Your task to perform on an android device: What's the weather? Image 0: 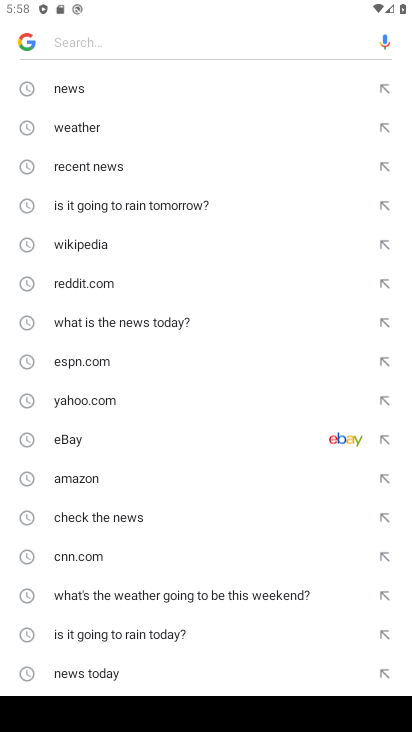
Step 0: press home button
Your task to perform on an android device: What's the weather? Image 1: 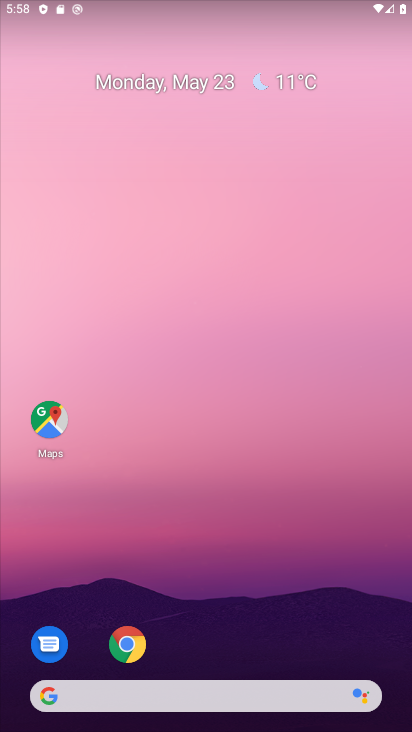
Step 1: click (189, 697)
Your task to perform on an android device: What's the weather? Image 2: 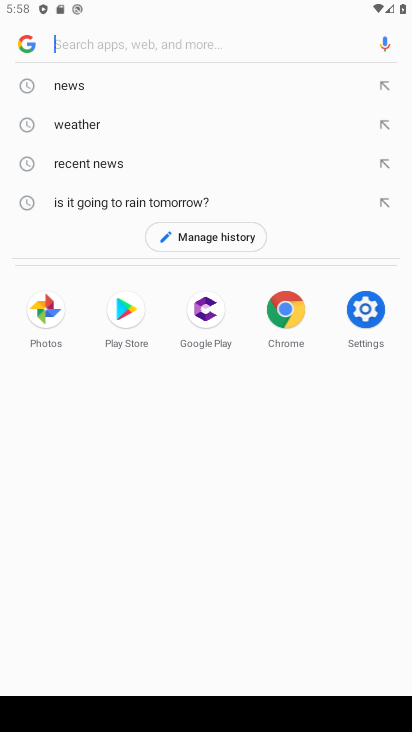
Step 2: click (91, 133)
Your task to perform on an android device: What's the weather? Image 3: 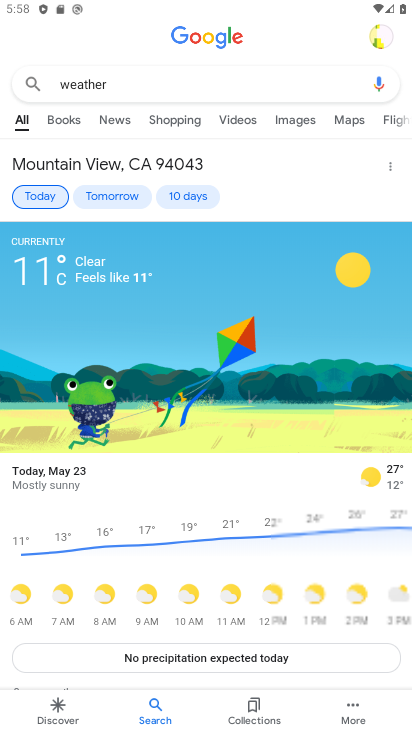
Step 3: task complete